Your task to perform on an android device: install app "TextNow: Call + Text Unlimited" Image 0: 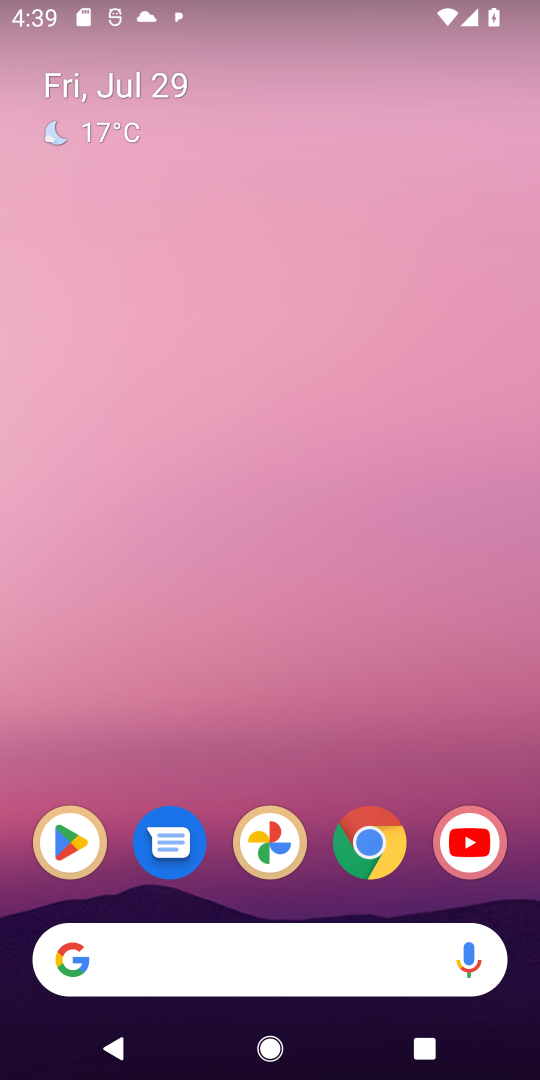
Step 0: click (63, 842)
Your task to perform on an android device: install app "TextNow: Call + Text Unlimited" Image 1: 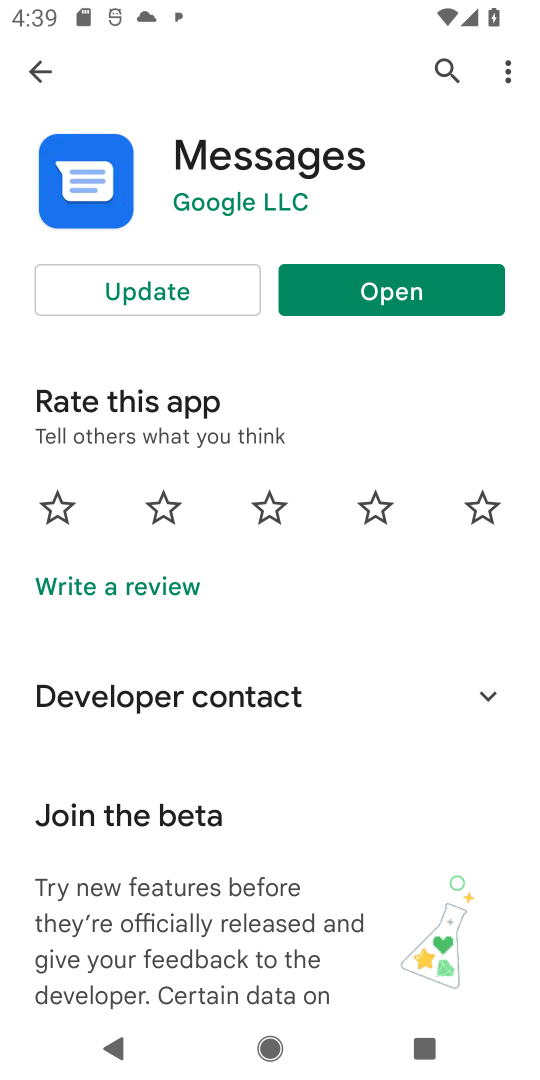
Step 1: click (425, 66)
Your task to perform on an android device: install app "TextNow: Call + Text Unlimited" Image 2: 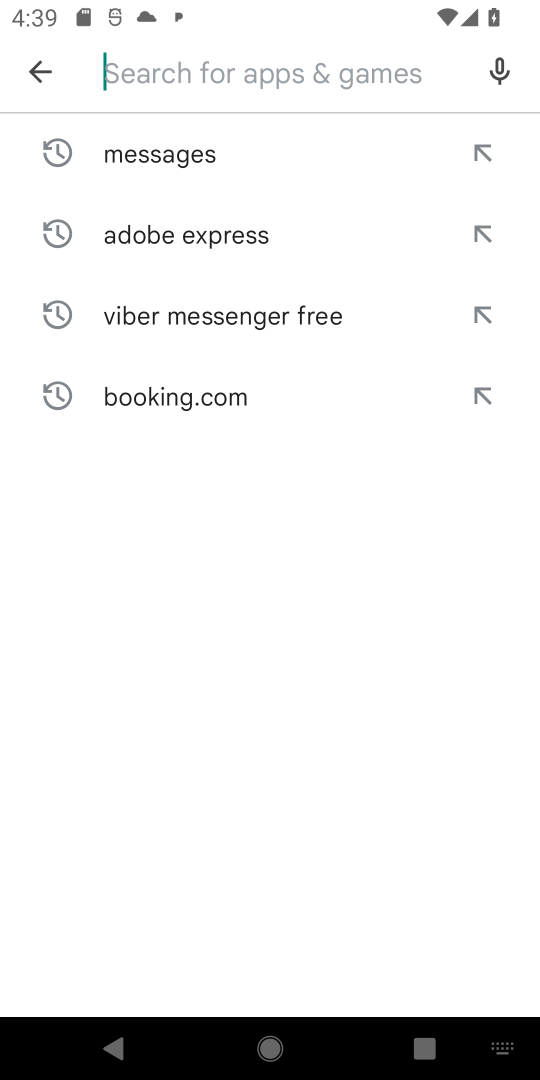
Step 2: click (371, 75)
Your task to perform on an android device: install app "TextNow: Call + Text Unlimited" Image 3: 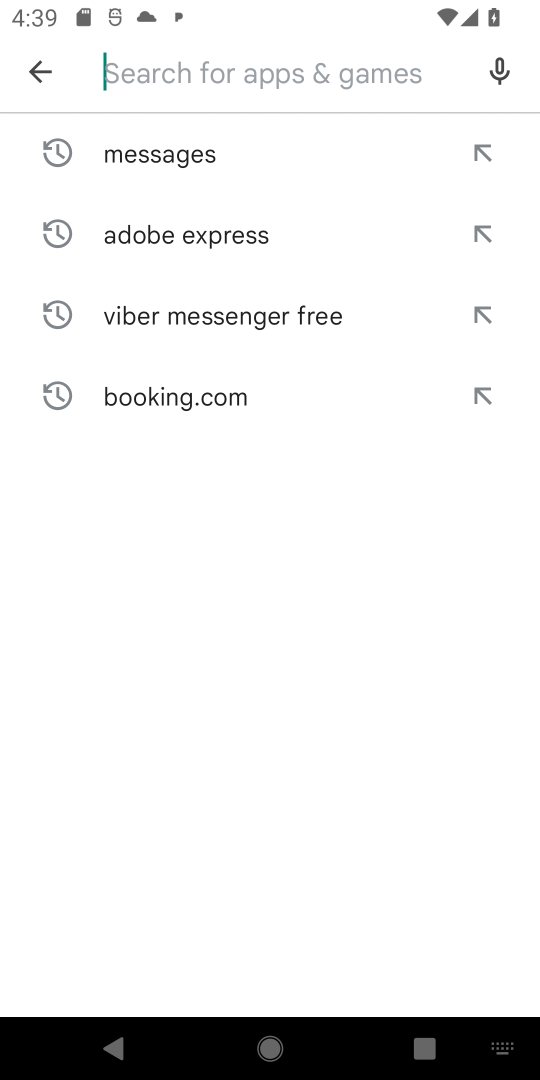
Step 3: type "text now"
Your task to perform on an android device: install app "TextNow: Call + Text Unlimited" Image 4: 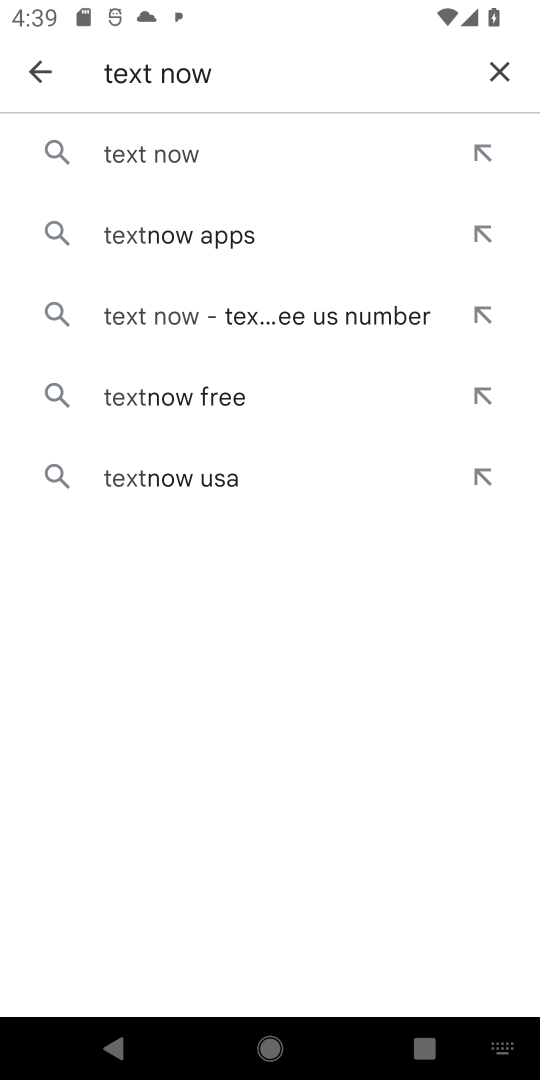
Step 4: click (206, 151)
Your task to perform on an android device: install app "TextNow: Call + Text Unlimited" Image 5: 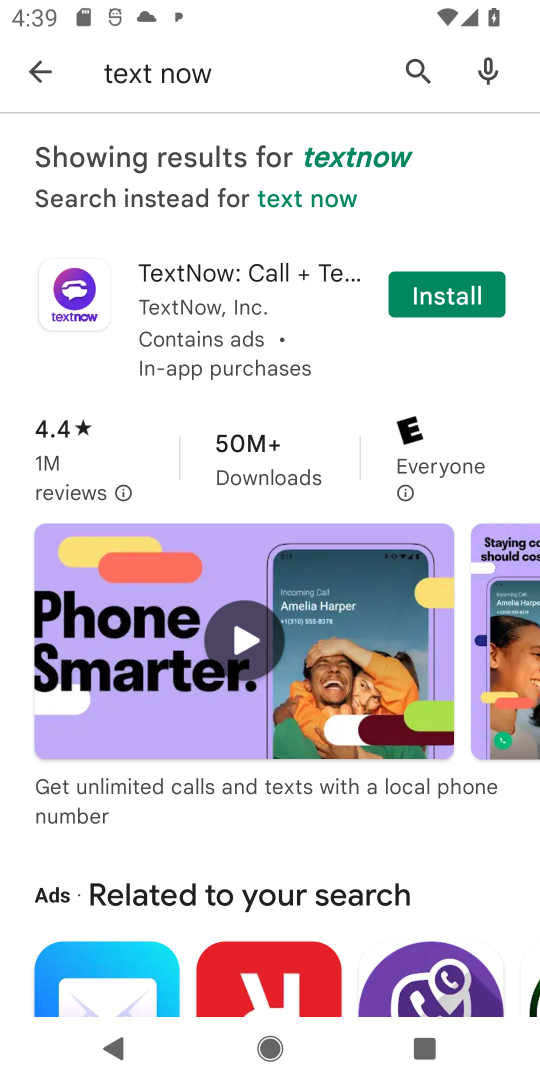
Step 5: click (434, 308)
Your task to perform on an android device: install app "TextNow: Call + Text Unlimited" Image 6: 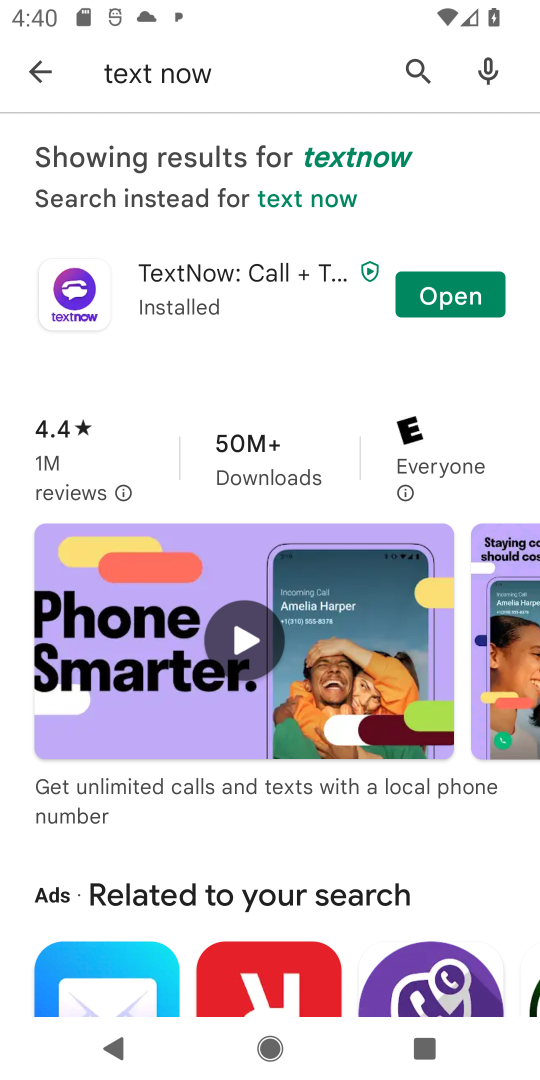
Step 6: click (439, 303)
Your task to perform on an android device: install app "TextNow: Call + Text Unlimited" Image 7: 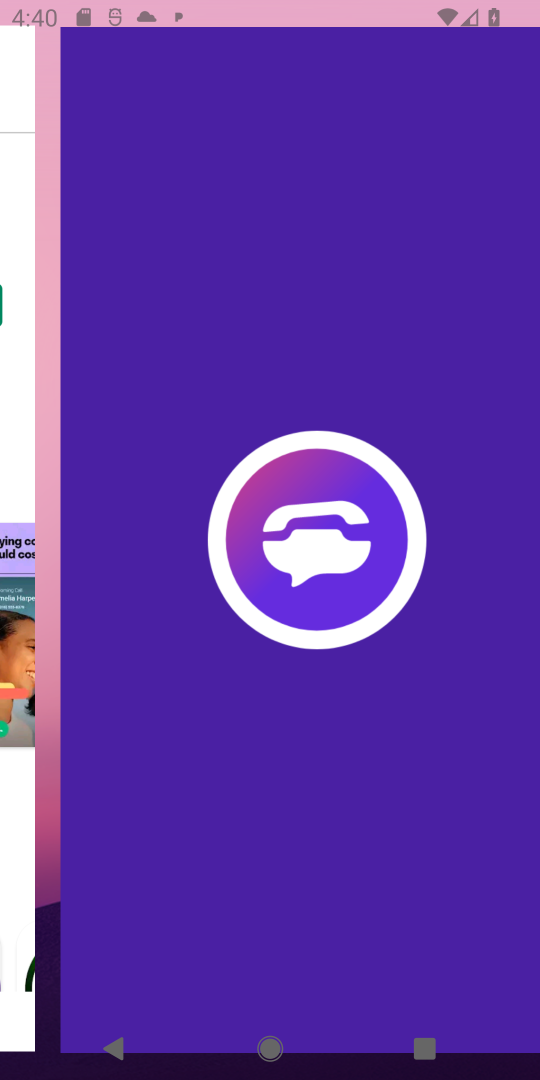
Step 7: task complete